Your task to perform on an android device: Open calendar and show me the first week of next month Image 0: 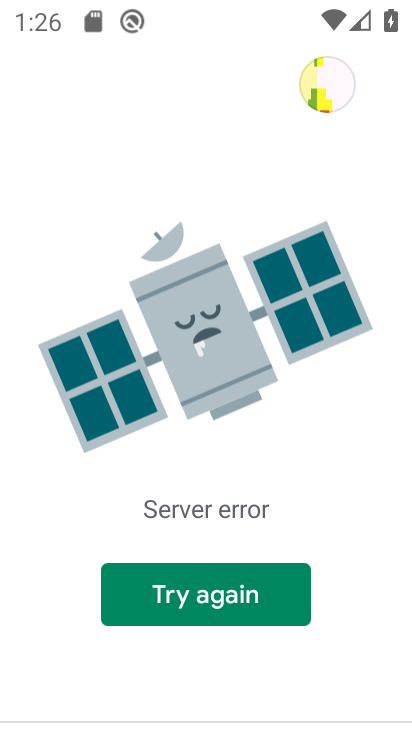
Step 0: press home button
Your task to perform on an android device: Open calendar and show me the first week of next month Image 1: 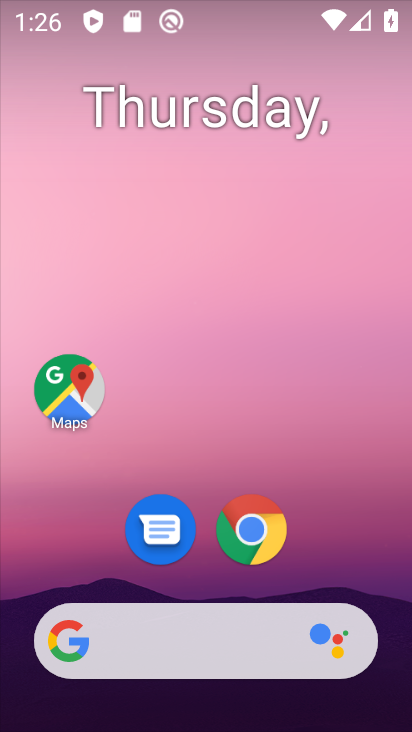
Step 1: drag from (6, 688) to (191, 195)
Your task to perform on an android device: Open calendar and show me the first week of next month Image 2: 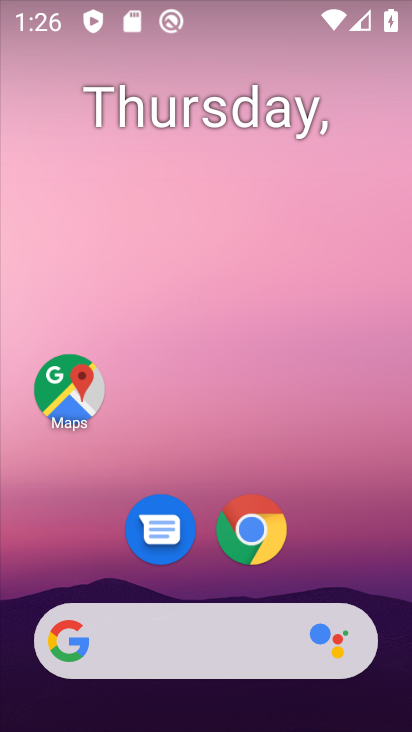
Step 2: drag from (75, 282) to (94, 232)
Your task to perform on an android device: Open calendar and show me the first week of next month Image 3: 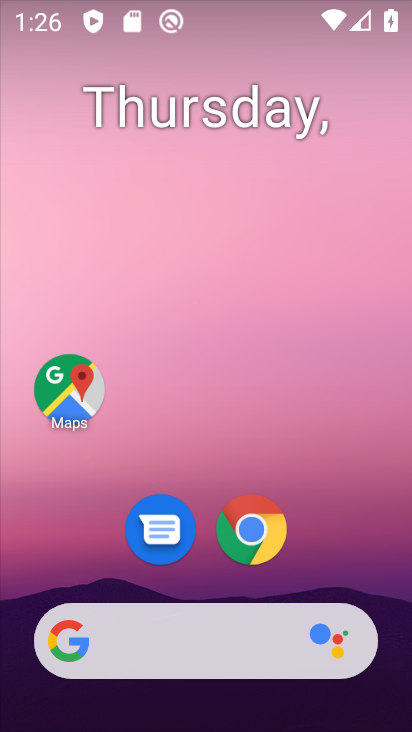
Step 3: drag from (90, 418) to (239, 190)
Your task to perform on an android device: Open calendar and show me the first week of next month Image 4: 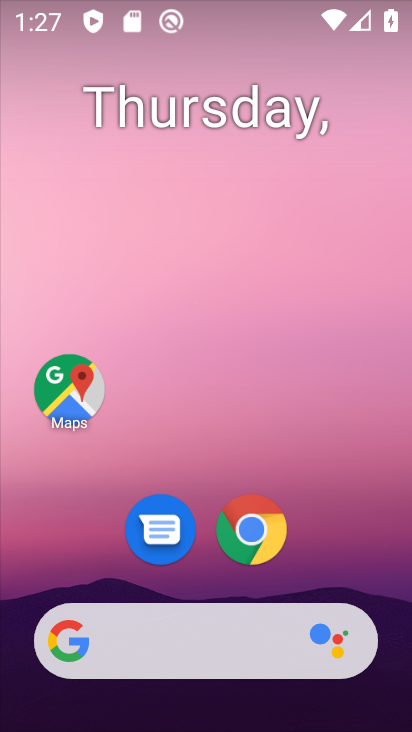
Step 4: drag from (237, 443) to (237, 13)
Your task to perform on an android device: Open calendar and show me the first week of next month Image 5: 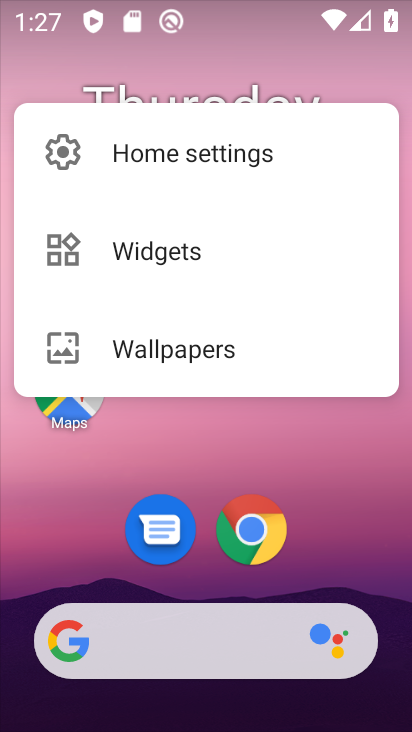
Step 5: click (246, 474)
Your task to perform on an android device: Open calendar and show me the first week of next month Image 6: 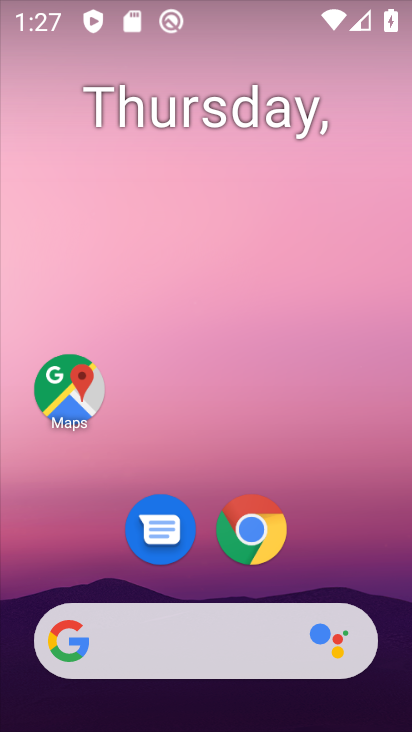
Step 6: drag from (210, 472) to (194, 48)
Your task to perform on an android device: Open calendar and show me the first week of next month Image 7: 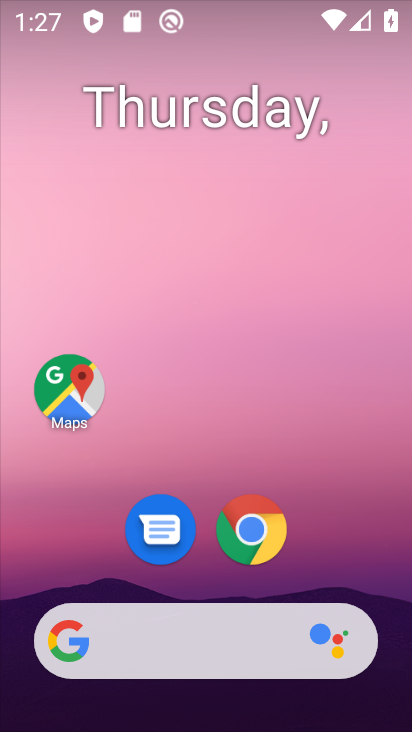
Step 7: drag from (201, 473) to (180, 99)
Your task to perform on an android device: Open calendar and show me the first week of next month Image 8: 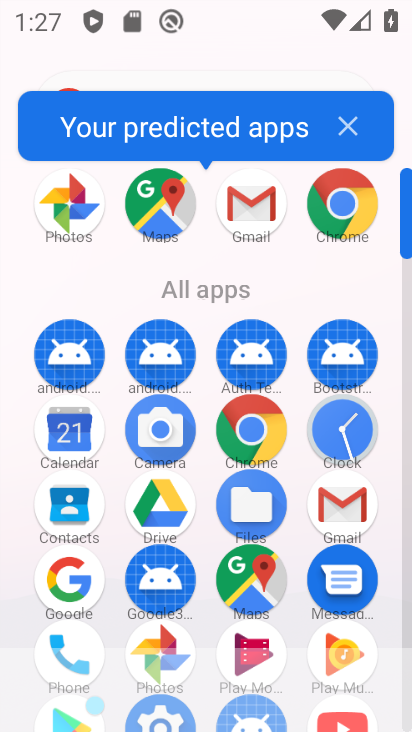
Step 8: click (69, 437)
Your task to perform on an android device: Open calendar and show me the first week of next month Image 9: 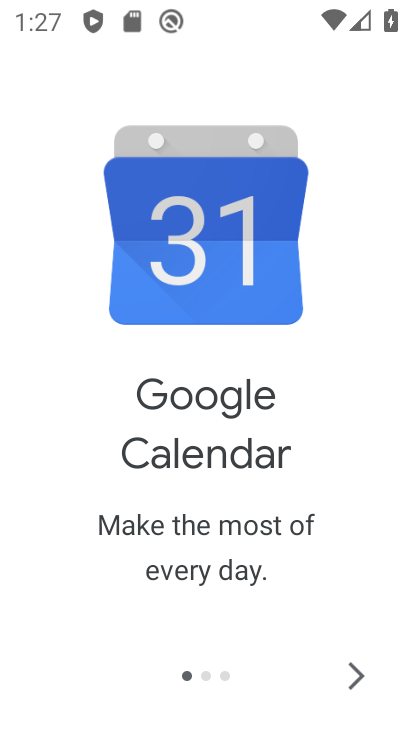
Step 9: click (345, 680)
Your task to perform on an android device: Open calendar and show me the first week of next month Image 10: 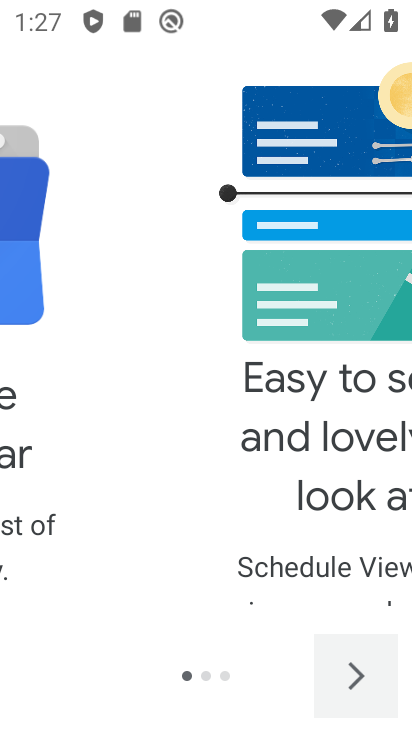
Step 10: click (345, 680)
Your task to perform on an android device: Open calendar and show me the first week of next month Image 11: 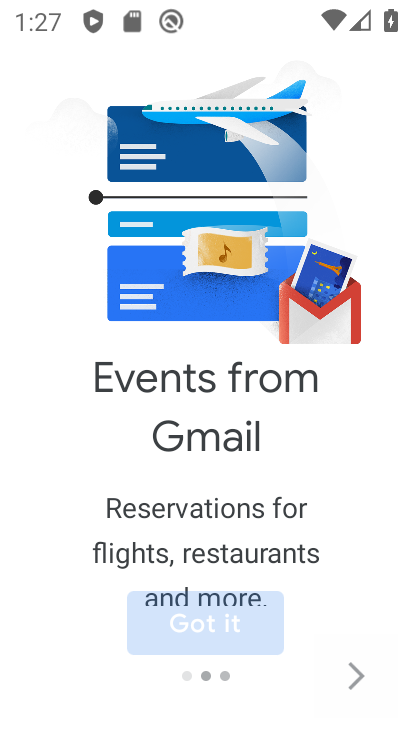
Step 11: click (345, 680)
Your task to perform on an android device: Open calendar and show me the first week of next month Image 12: 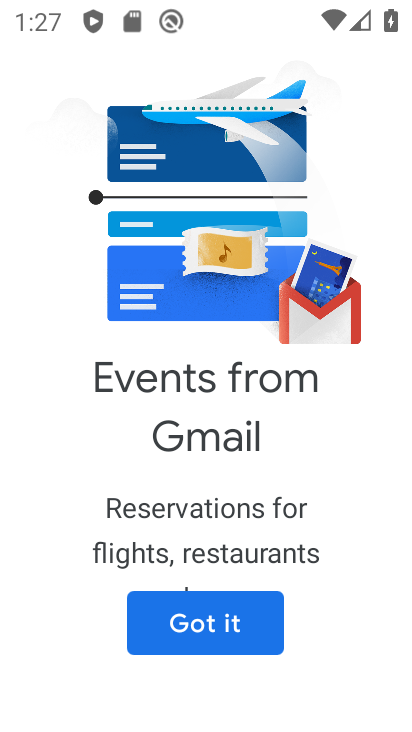
Step 12: click (199, 635)
Your task to perform on an android device: Open calendar and show me the first week of next month Image 13: 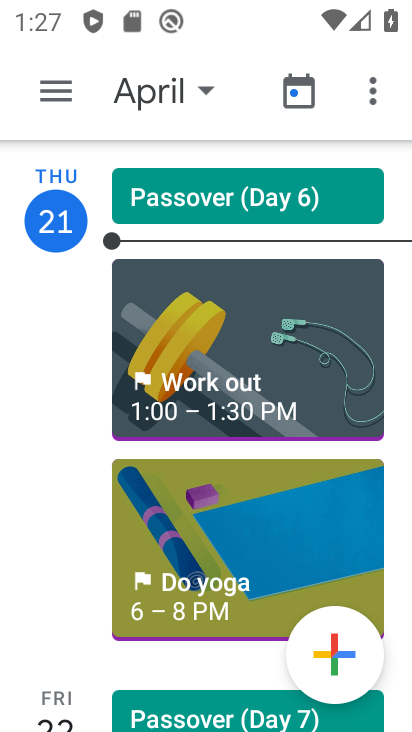
Step 13: click (200, 98)
Your task to perform on an android device: Open calendar and show me the first week of next month Image 14: 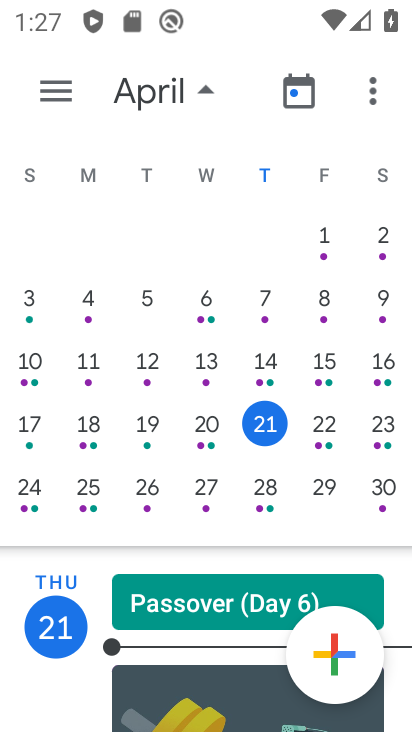
Step 14: drag from (336, 304) to (38, 170)
Your task to perform on an android device: Open calendar and show me the first week of next month Image 15: 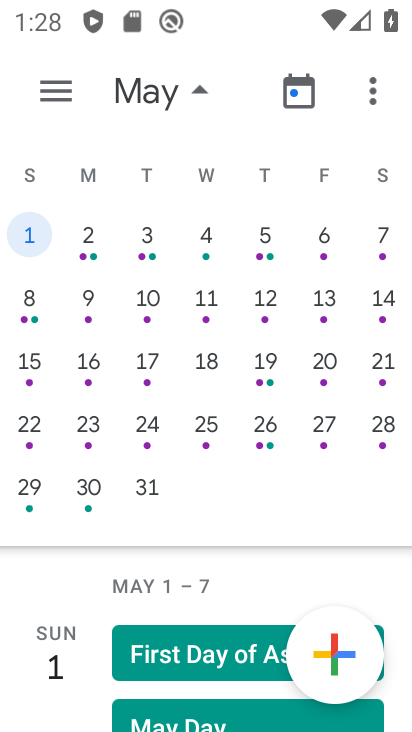
Step 15: click (29, 237)
Your task to perform on an android device: Open calendar and show me the first week of next month Image 16: 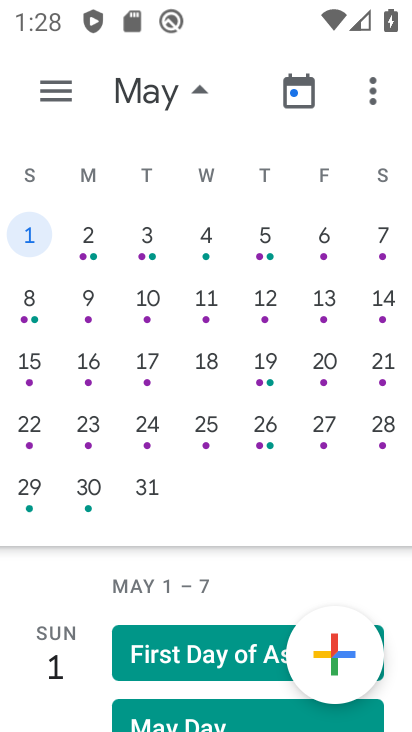
Step 16: click (84, 244)
Your task to perform on an android device: Open calendar and show me the first week of next month Image 17: 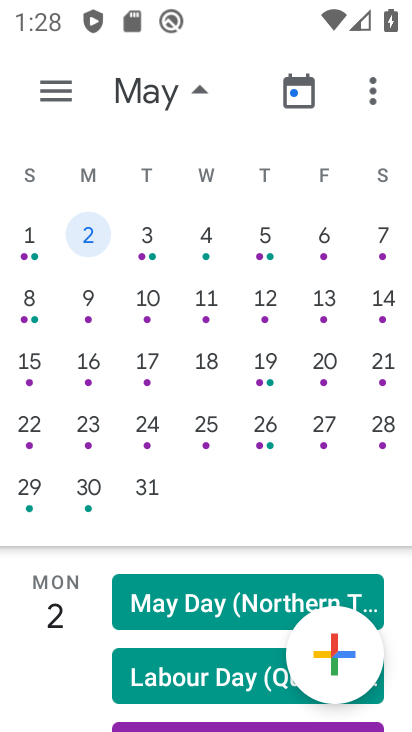
Step 17: click (150, 236)
Your task to perform on an android device: Open calendar and show me the first week of next month Image 18: 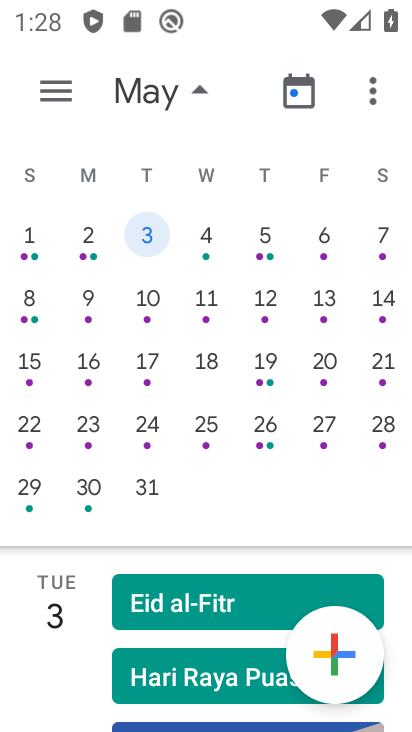
Step 18: click (212, 244)
Your task to perform on an android device: Open calendar and show me the first week of next month Image 19: 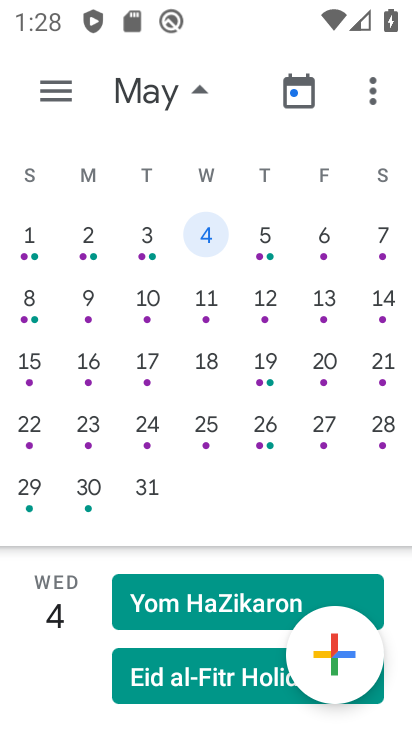
Step 19: task complete